Your task to perform on an android device: Go to notification settings Image 0: 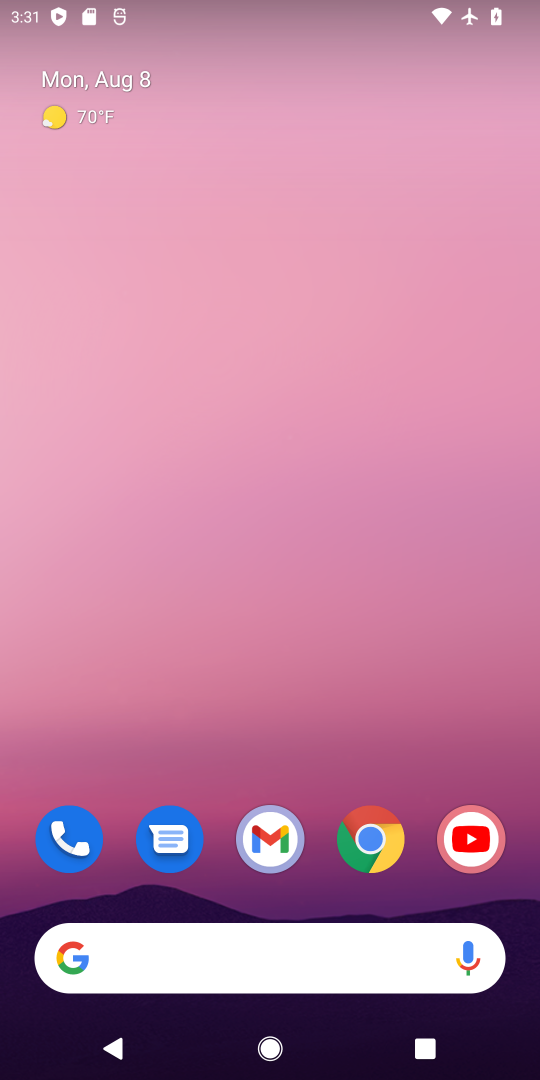
Step 0: press home button
Your task to perform on an android device: Go to notification settings Image 1: 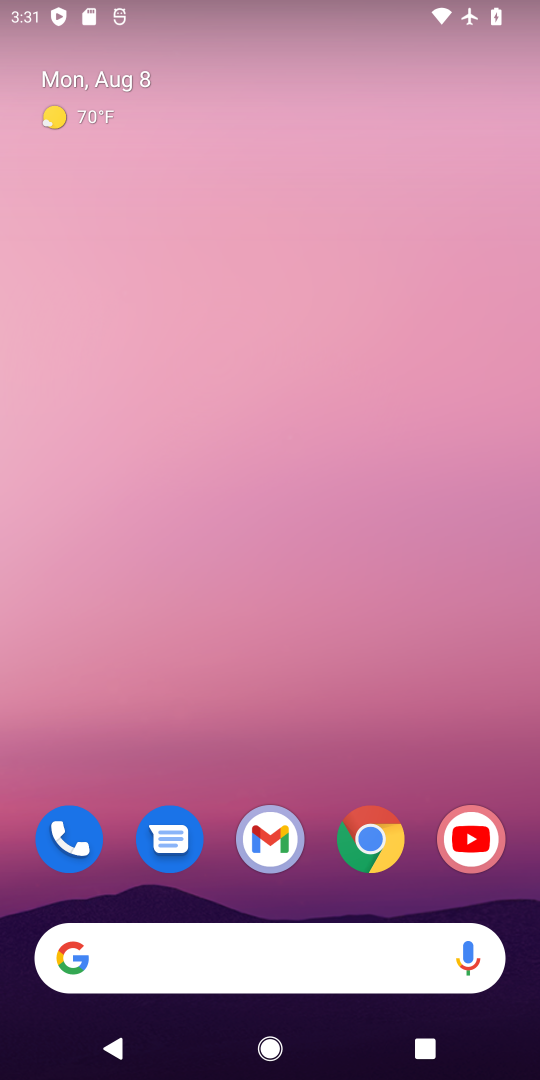
Step 1: drag from (414, 782) to (443, 145)
Your task to perform on an android device: Go to notification settings Image 2: 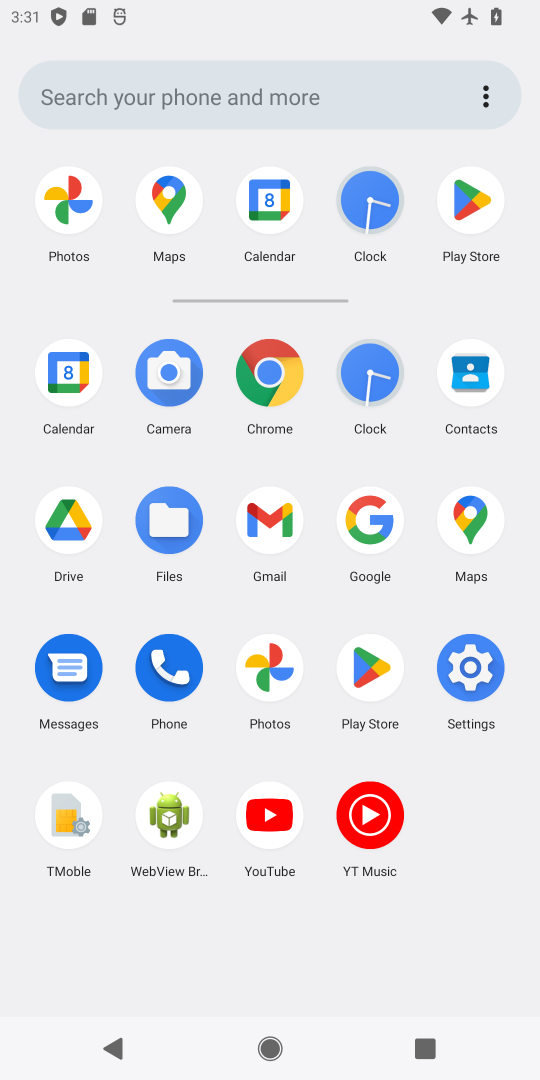
Step 2: click (462, 664)
Your task to perform on an android device: Go to notification settings Image 3: 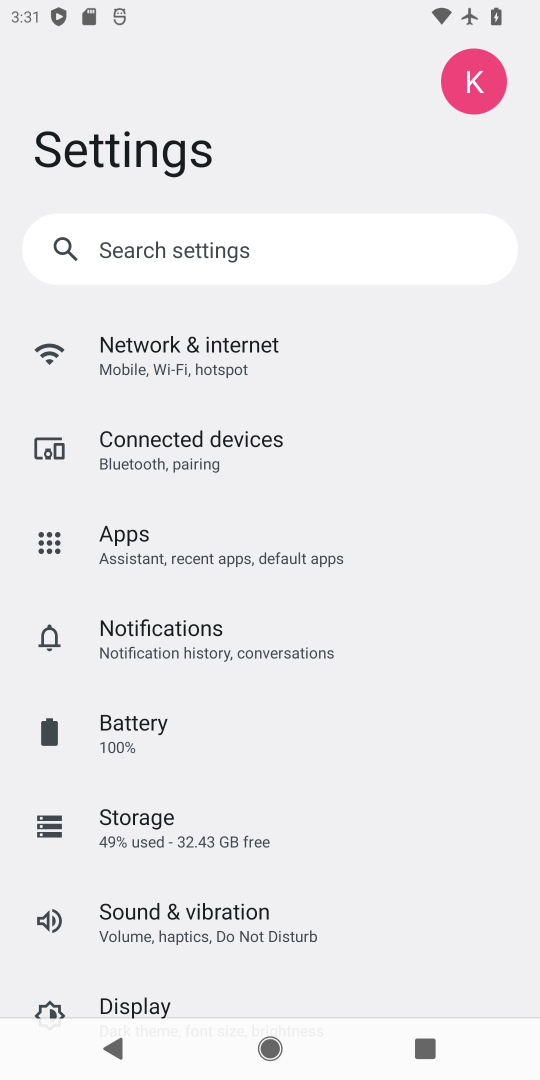
Step 3: drag from (460, 781) to (469, 510)
Your task to perform on an android device: Go to notification settings Image 4: 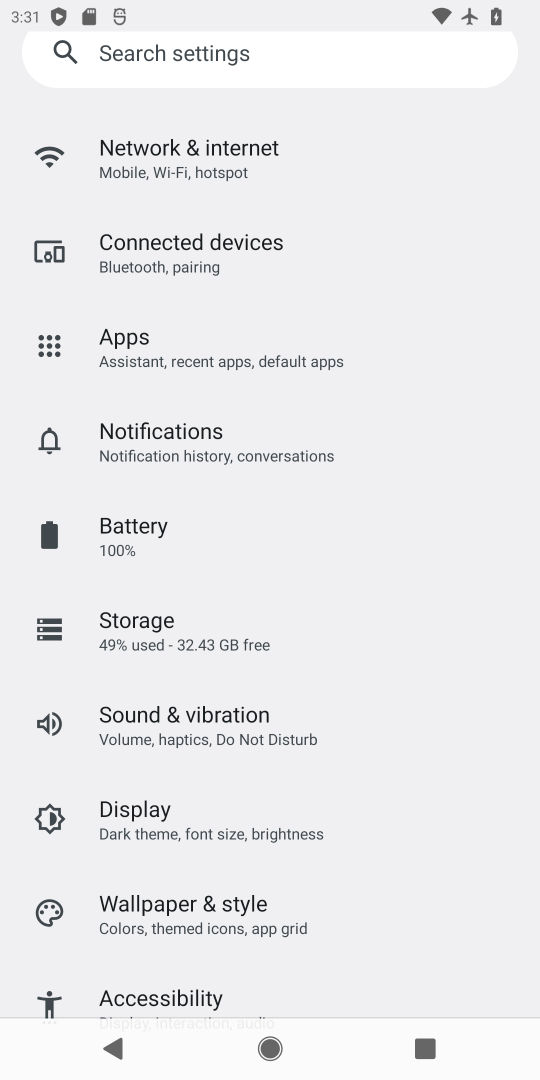
Step 4: drag from (463, 719) to (454, 472)
Your task to perform on an android device: Go to notification settings Image 5: 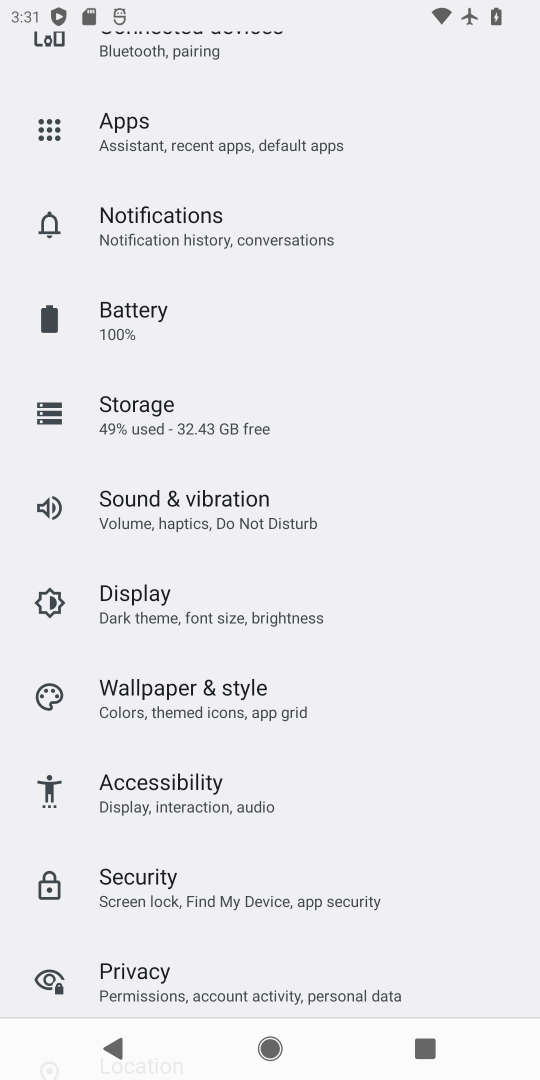
Step 5: drag from (447, 742) to (461, 555)
Your task to perform on an android device: Go to notification settings Image 6: 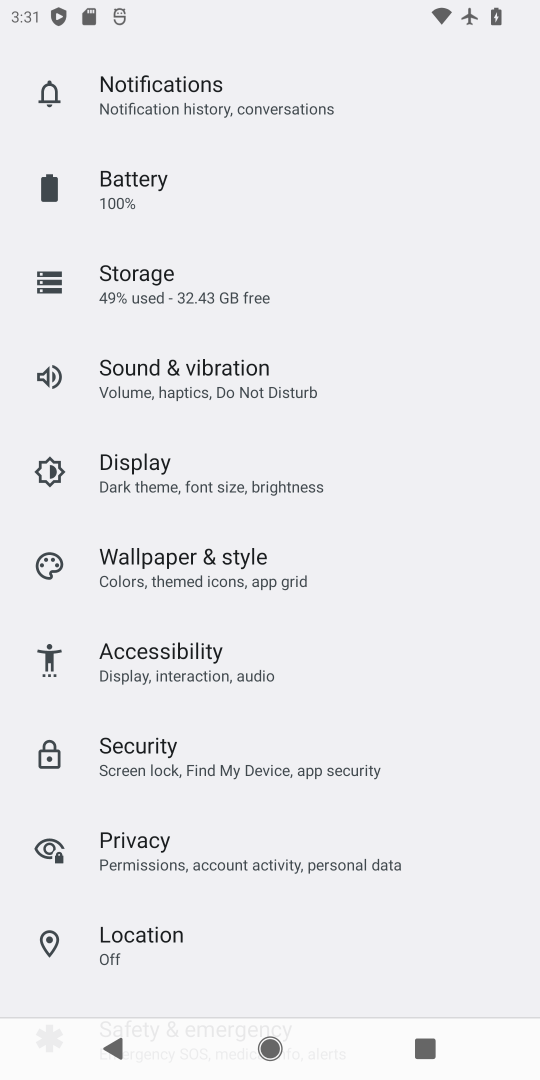
Step 6: drag from (445, 808) to (467, 541)
Your task to perform on an android device: Go to notification settings Image 7: 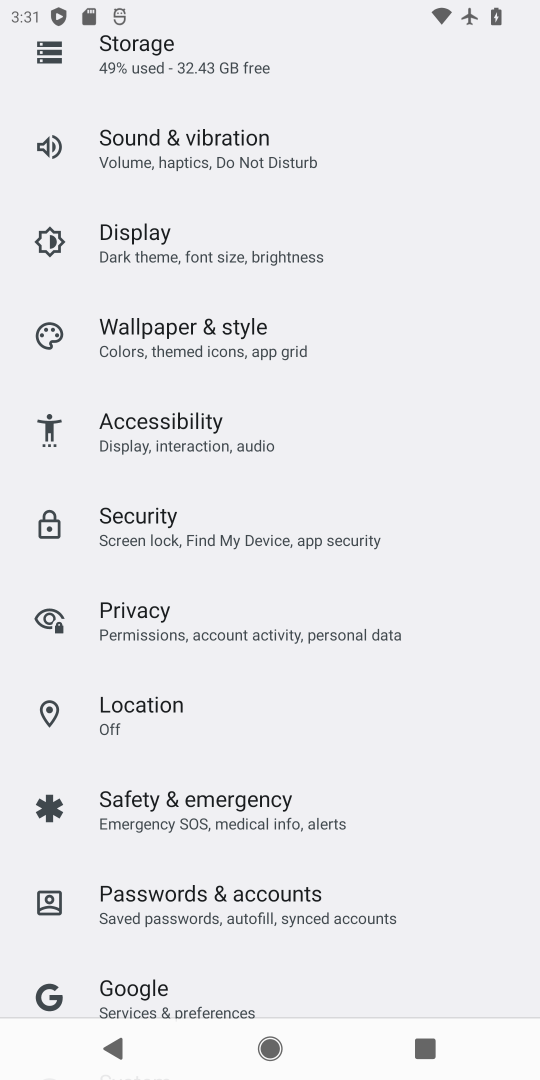
Step 7: drag from (463, 807) to (467, 530)
Your task to perform on an android device: Go to notification settings Image 8: 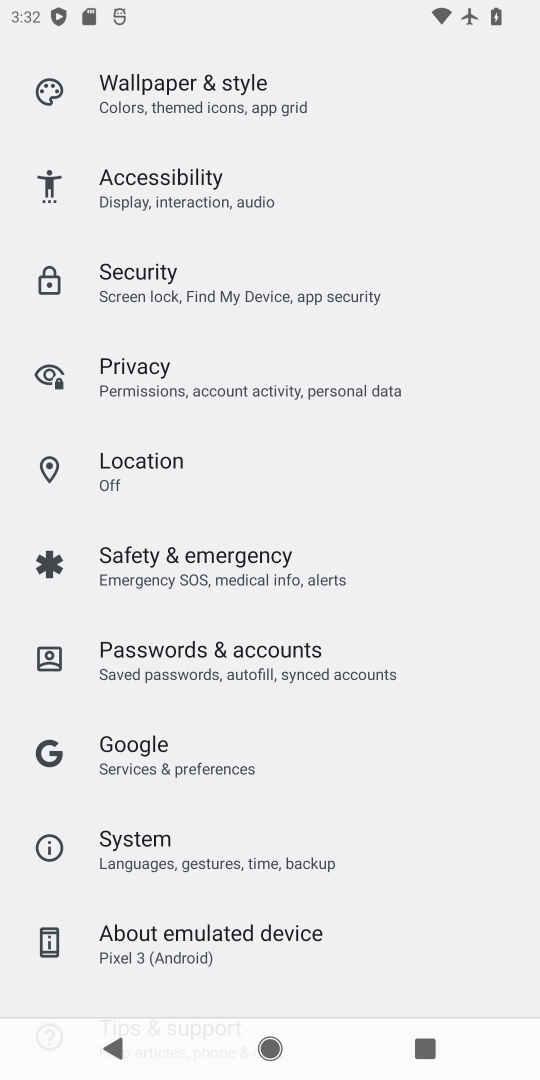
Step 8: drag from (428, 780) to (452, 573)
Your task to perform on an android device: Go to notification settings Image 9: 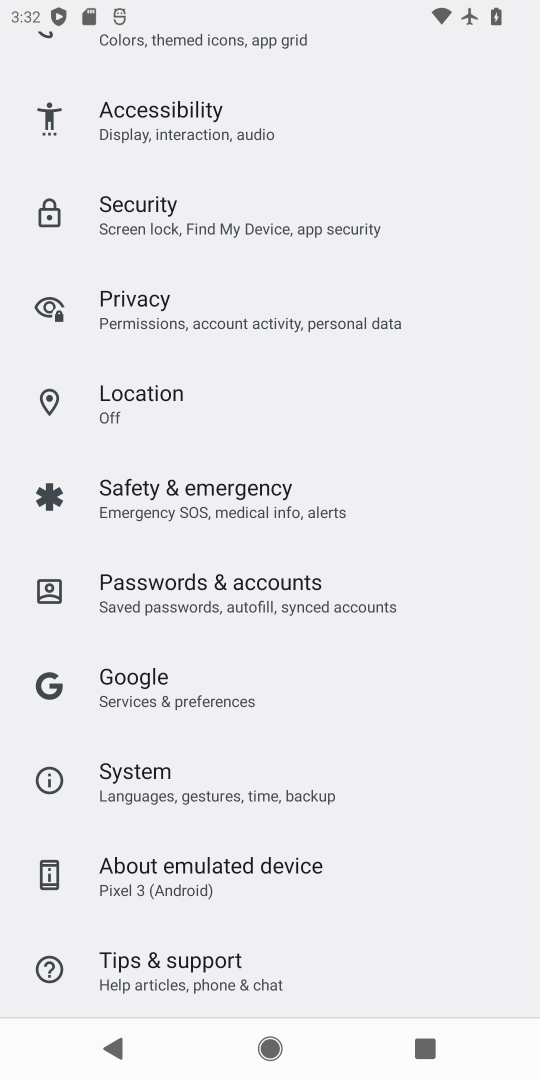
Step 9: drag from (443, 405) to (460, 623)
Your task to perform on an android device: Go to notification settings Image 10: 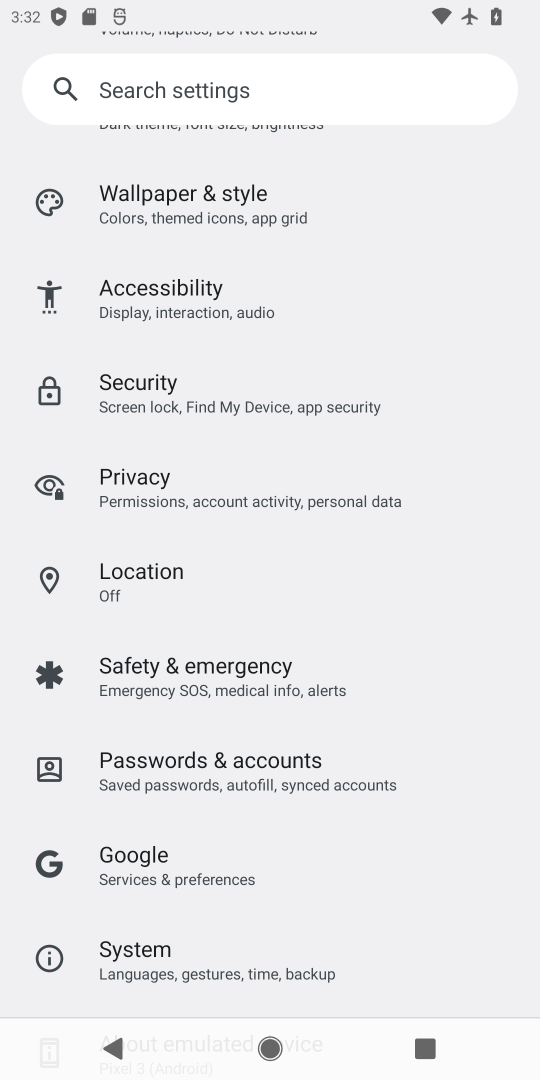
Step 10: drag from (463, 466) to (466, 656)
Your task to perform on an android device: Go to notification settings Image 11: 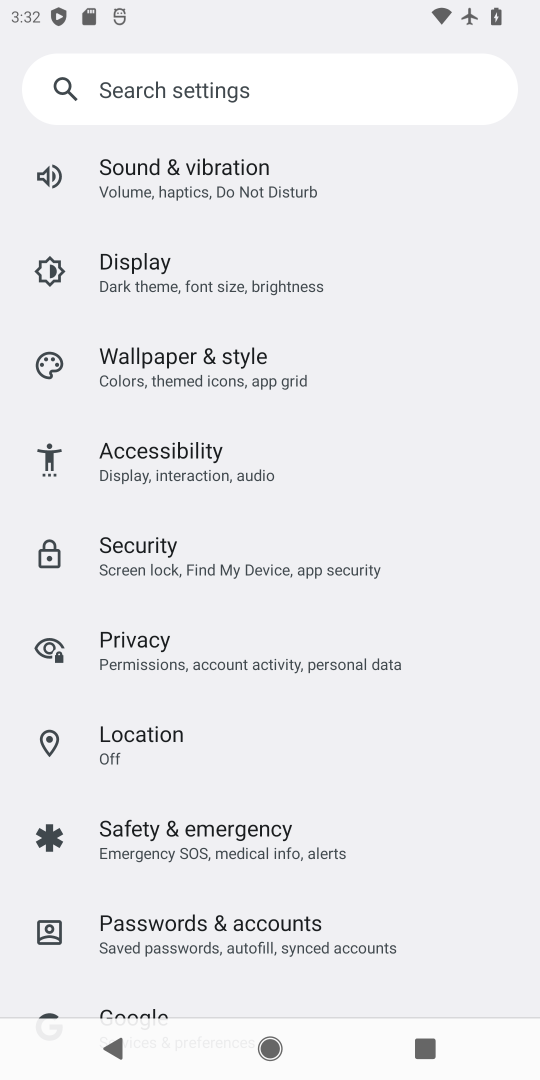
Step 11: drag from (457, 412) to (453, 684)
Your task to perform on an android device: Go to notification settings Image 12: 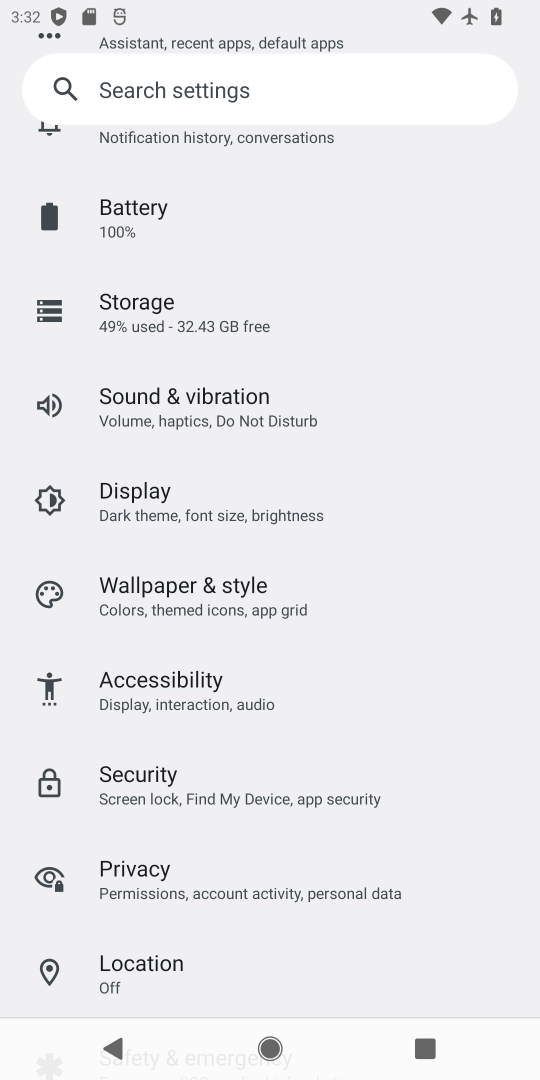
Step 12: drag from (434, 340) to (447, 587)
Your task to perform on an android device: Go to notification settings Image 13: 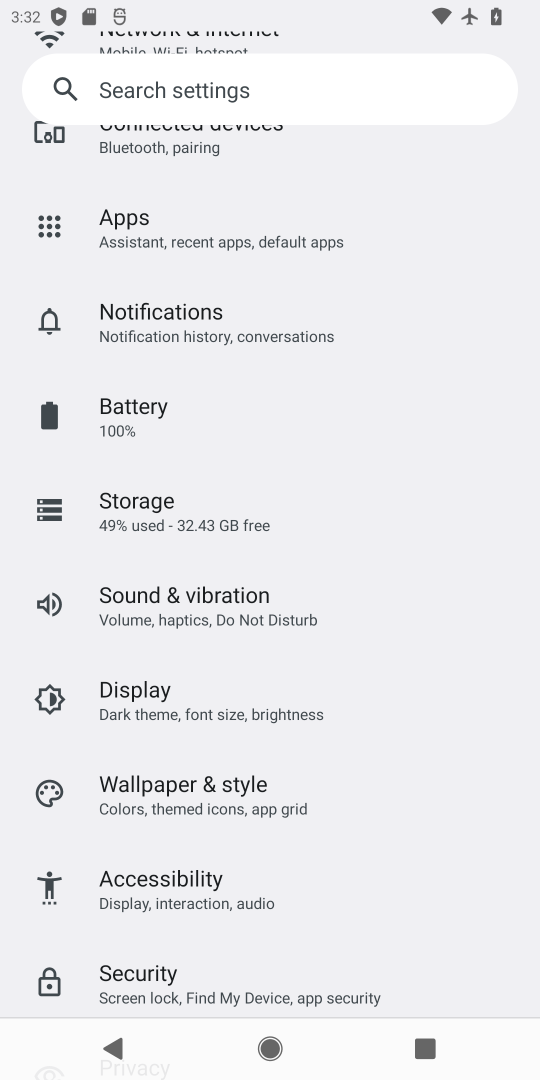
Step 13: drag from (459, 470) to (452, 667)
Your task to perform on an android device: Go to notification settings Image 14: 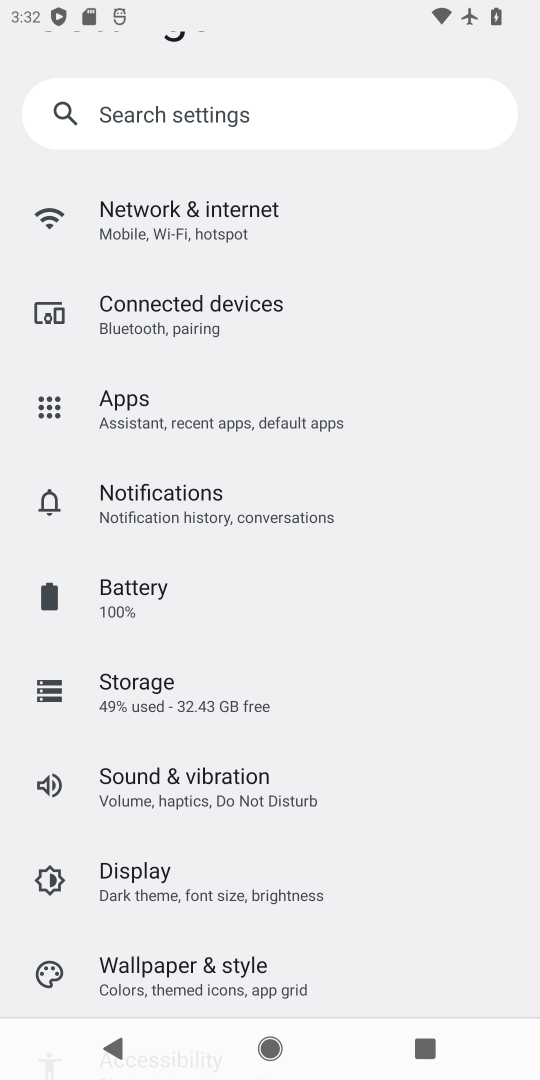
Step 14: drag from (436, 303) to (440, 610)
Your task to perform on an android device: Go to notification settings Image 15: 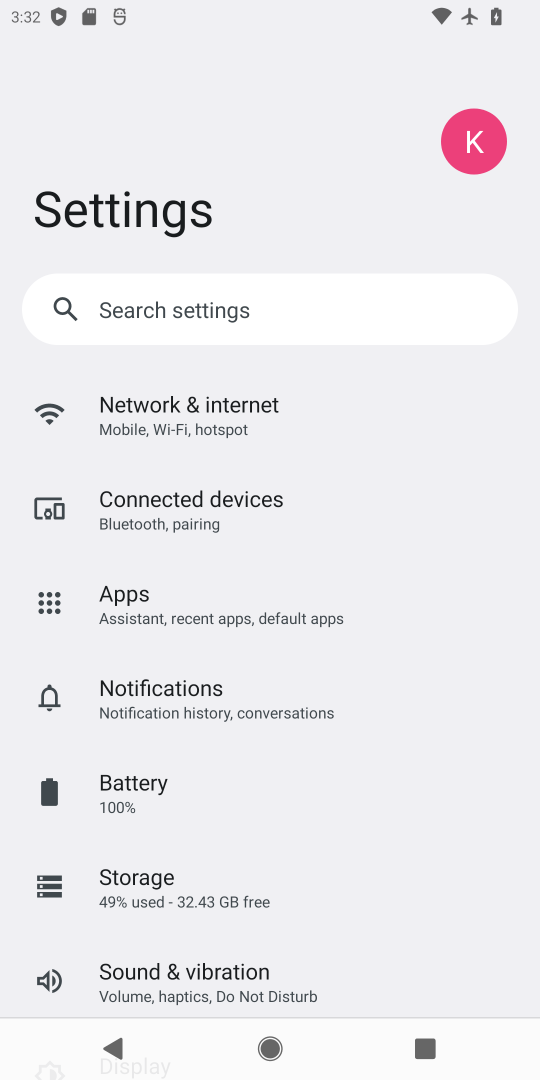
Step 15: click (329, 698)
Your task to perform on an android device: Go to notification settings Image 16: 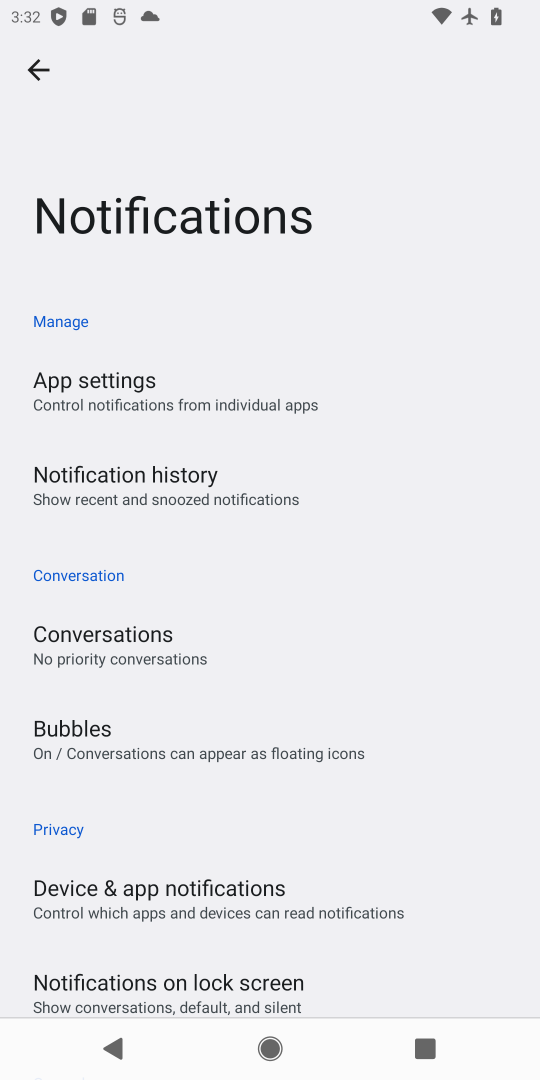
Step 16: task complete